Your task to perform on an android device: change the upload size in google photos Image 0: 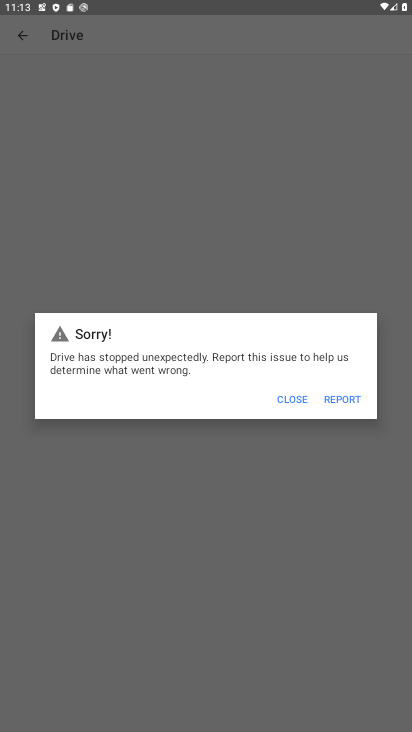
Step 0: press home button
Your task to perform on an android device: change the upload size in google photos Image 1: 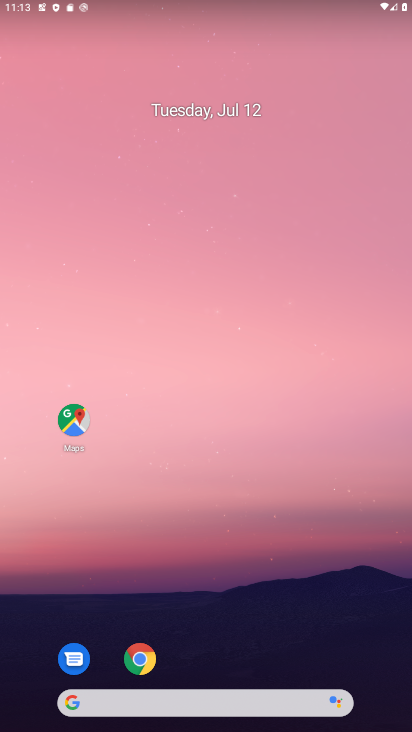
Step 1: drag from (194, 668) to (229, 117)
Your task to perform on an android device: change the upload size in google photos Image 2: 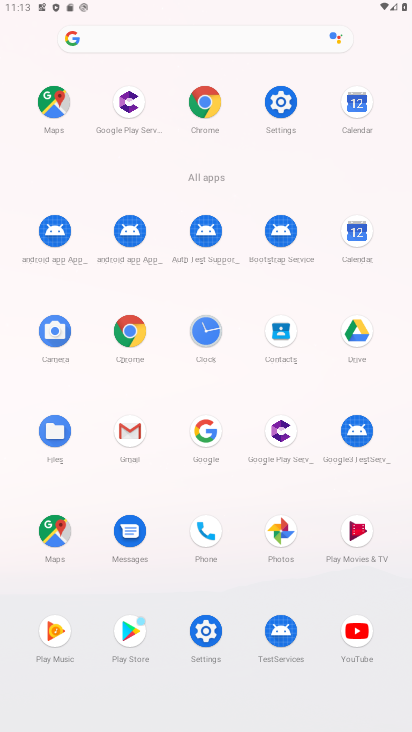
Step 2: click (285, 531)
Your task to perform on an android device: change the upload size in google photos Image 3: 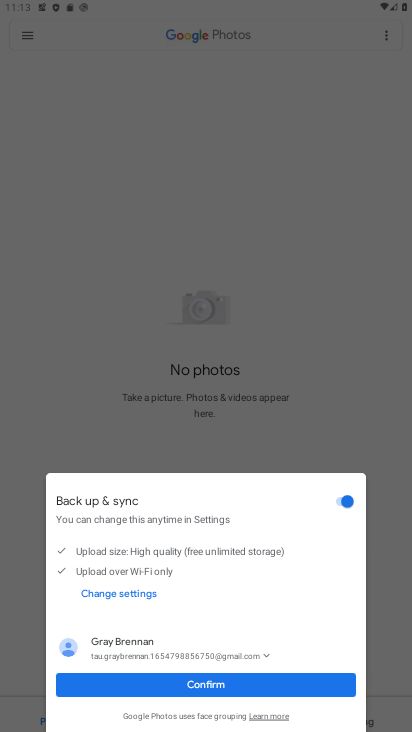
Step 3: click (218, 690)
Your task to perform on an android device: change the upload size in google photos Image 4: 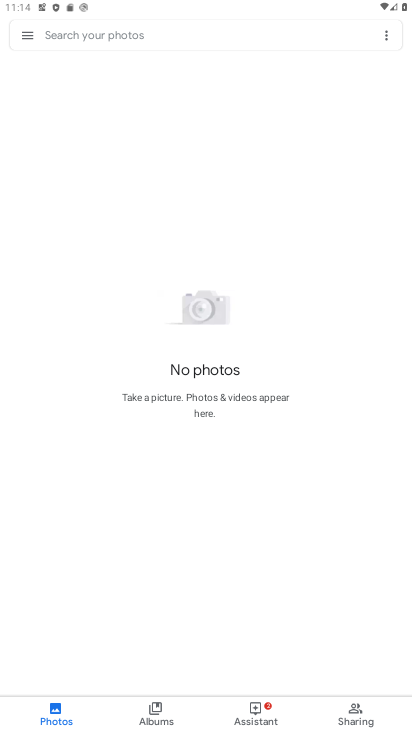
Step 4: click (27, 30)
Your task to perform on an android device: change the upload size in google photos Image 5: 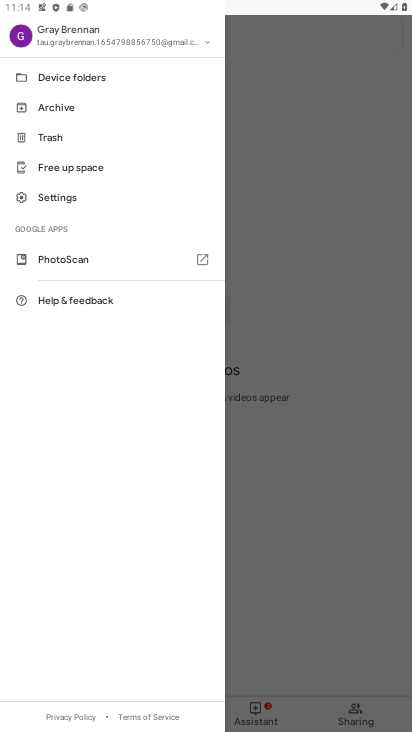
Step 5: click (65, 205)
Your task to perform on an android device: change the upload size in google photos Image 6: 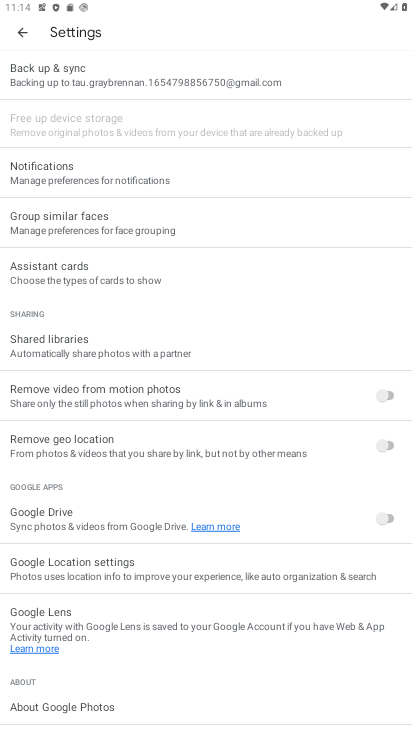
Step 6: click (80, 81)
Your task to perform on an android device: change the upload size in google photos Image 7: 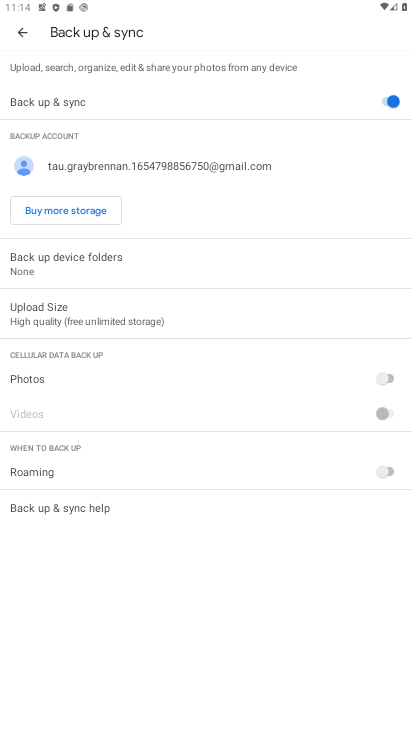
Step 7: click (78, 324)
Your task to perform on an android device: change the upload size in google photos Image 8: 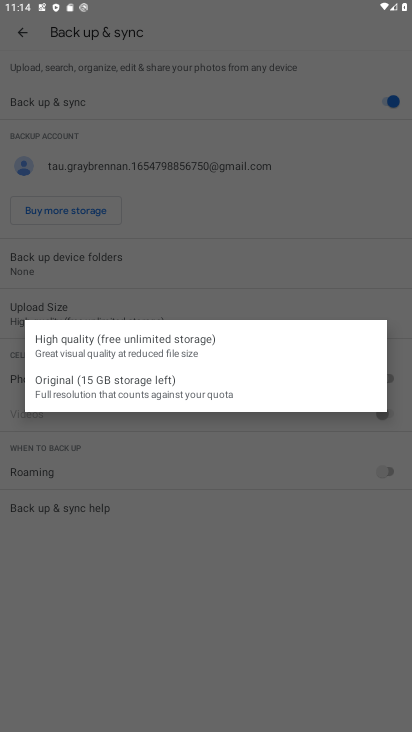
Step 8: click (80, 375)
Your task to perform on an android device: change the upload size in google photos Image 9: 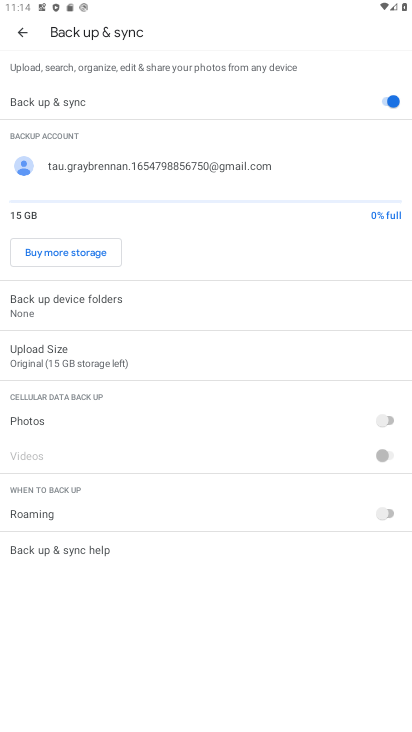
Step 9: task complete